Your task to perform on an android device: Open Google Maps and go to "Timeline" Image 0: 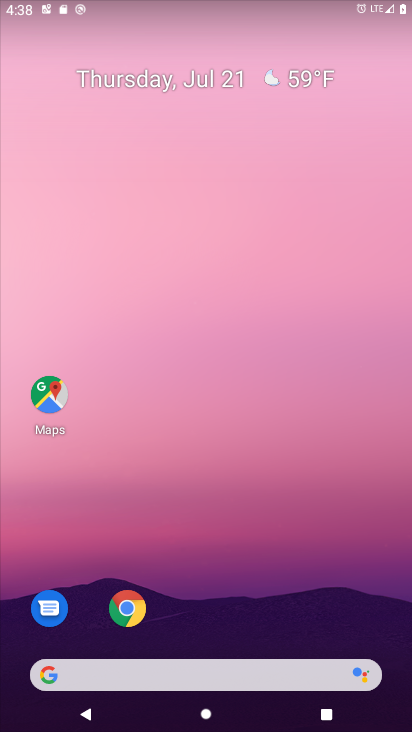
Step 0: drag from (189, 641) to (234, 110)
Your task to perform on an android device: Open Google Maps and go to "Timeline" Image 1: 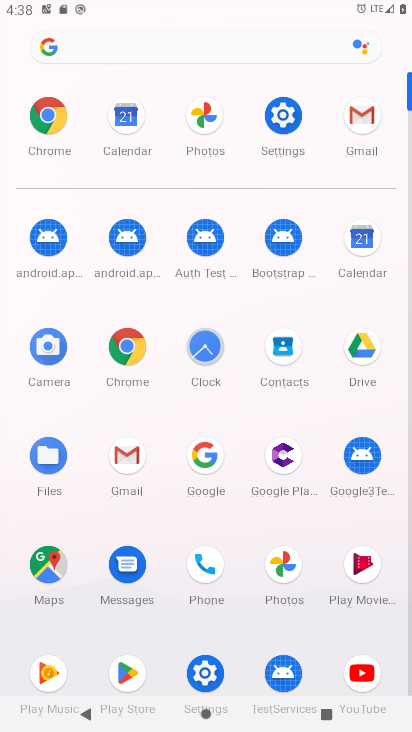
Step 1: click (40, 569)
Your task to perform on an android device: Open Google Maps and go to "Timeline" Image 2: 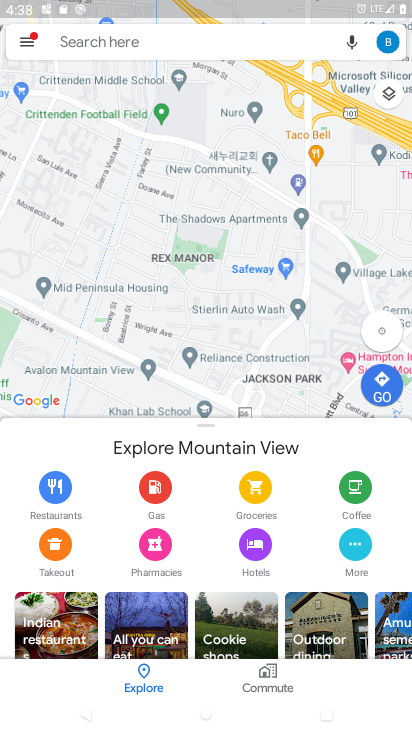
Step 2: click (26, 27)
Your task to perform on an android device: Open Google Maps and go to "Timeline" Image 3: 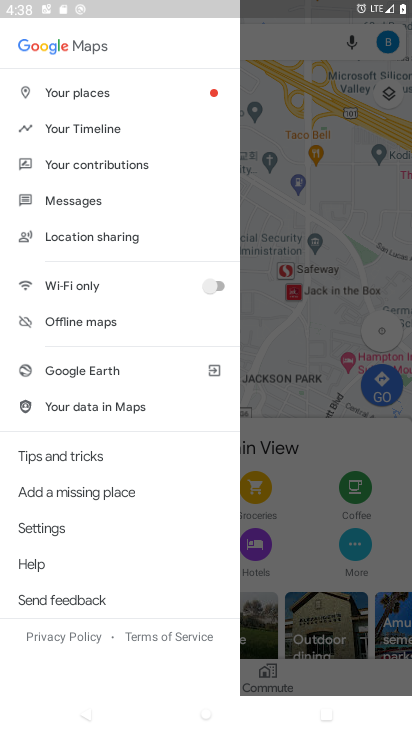
Step 3: click (93, 126)
Your task to perform on an android device: Open Google Maps and go to "Timeline" Image 4: 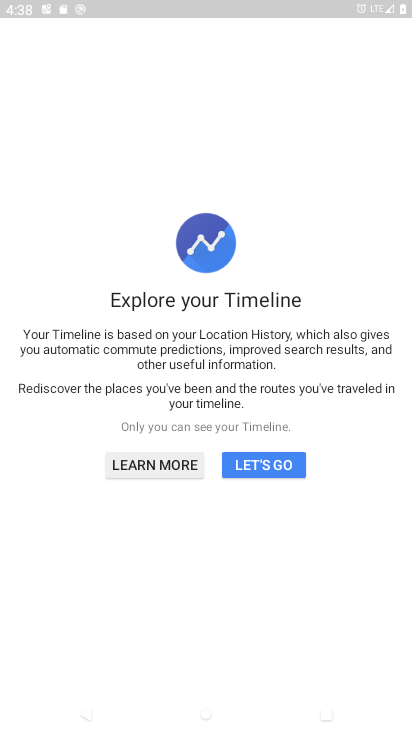
Step 4: click (235, 461)
Your task to perform on an android device: Open Google Maps and go to "Timeline" Image 5: 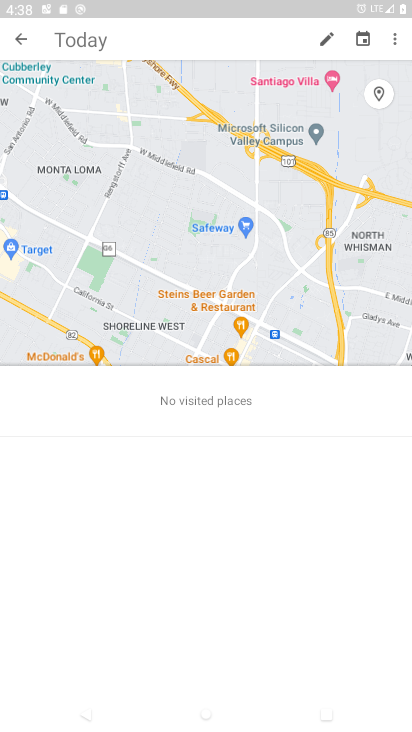
Step 5: task complete